Your task to perform on an android device: Open Google Maps Image 0: 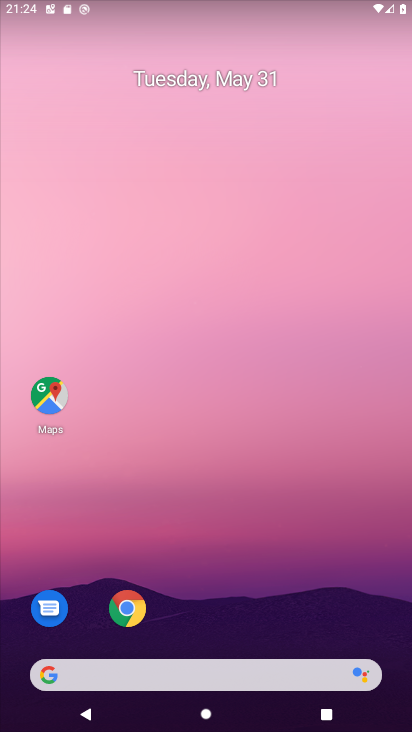
Step 0: click (48, 396)
Your task to perform on an android device: Open Google Maps Image 1: 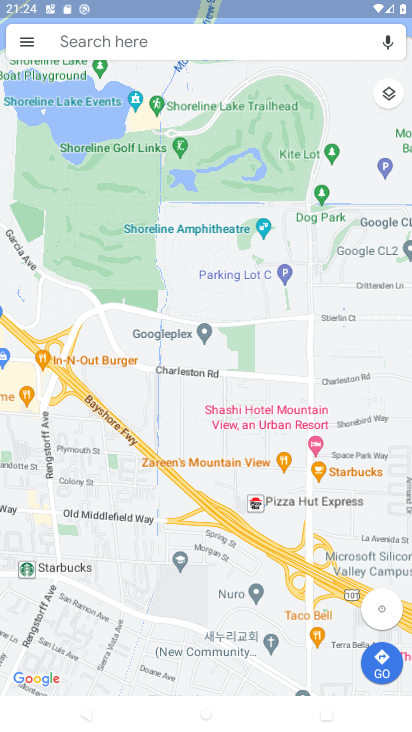
Step 1: task complete